Your task to perform on an android device: stop showing notifications on the lock screen Image 0: 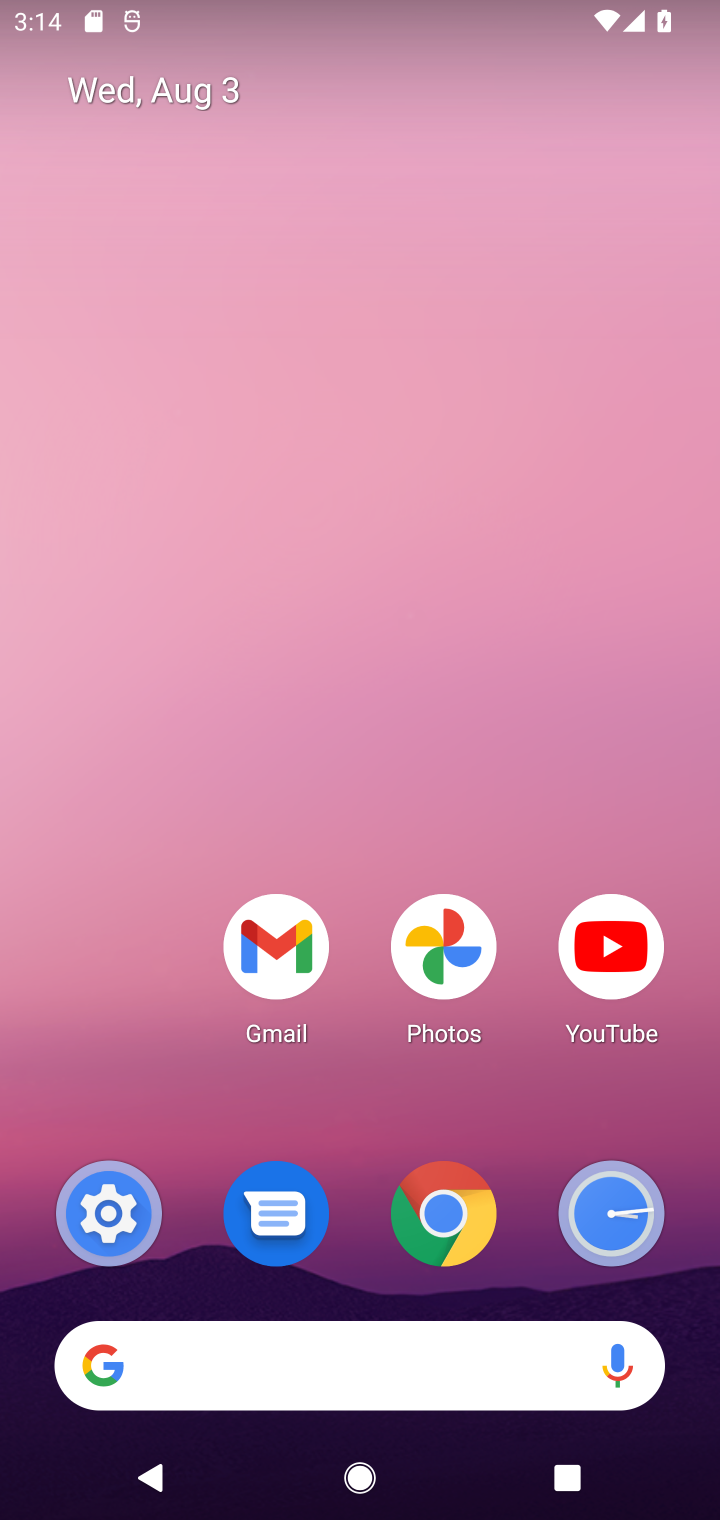
Step 0: drag from (567, 969) to (567, 127)
Your task to perform on an android device: stop showing notifications on the lock screen Image 1: 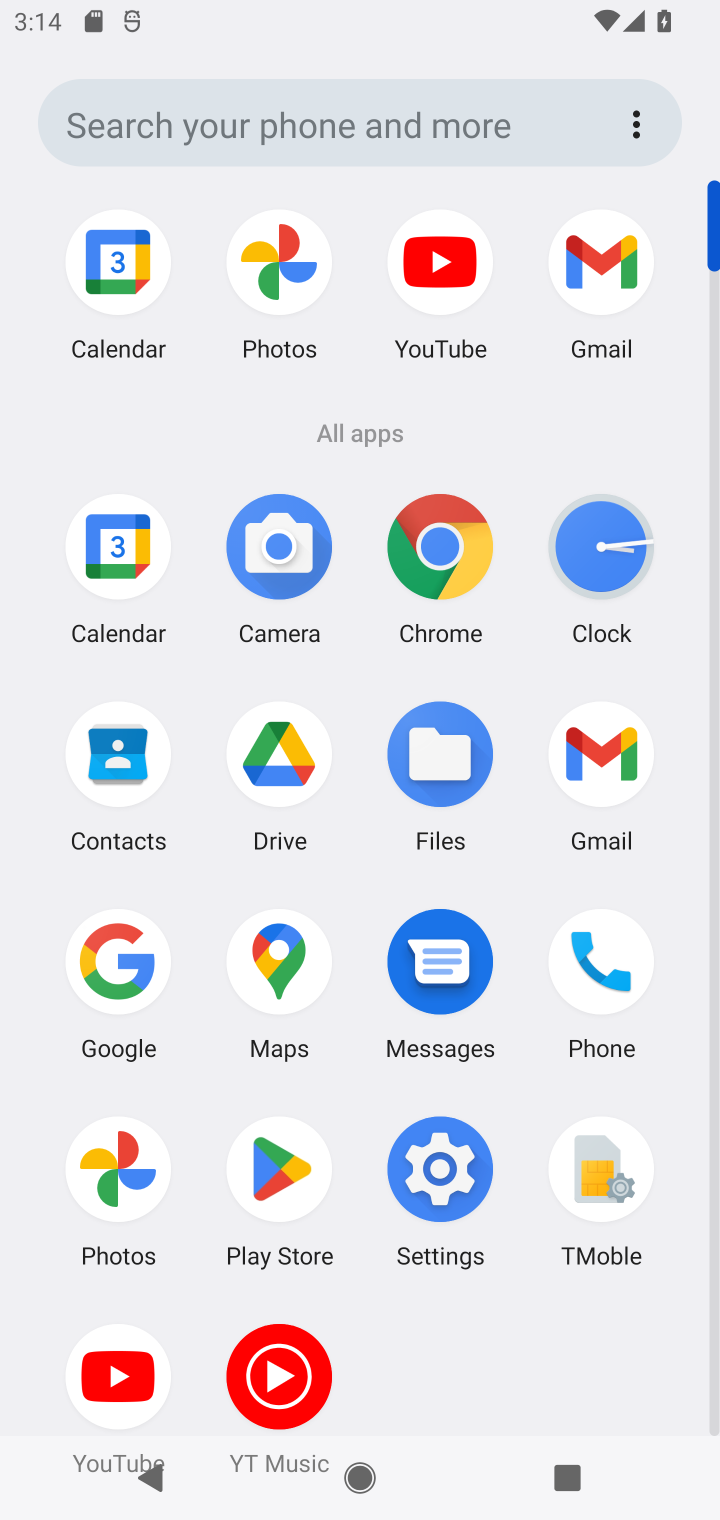
Step 1: click (424, 1184)
Your task to perform on an android device: stop showing notifications on the lock screen Image 2: 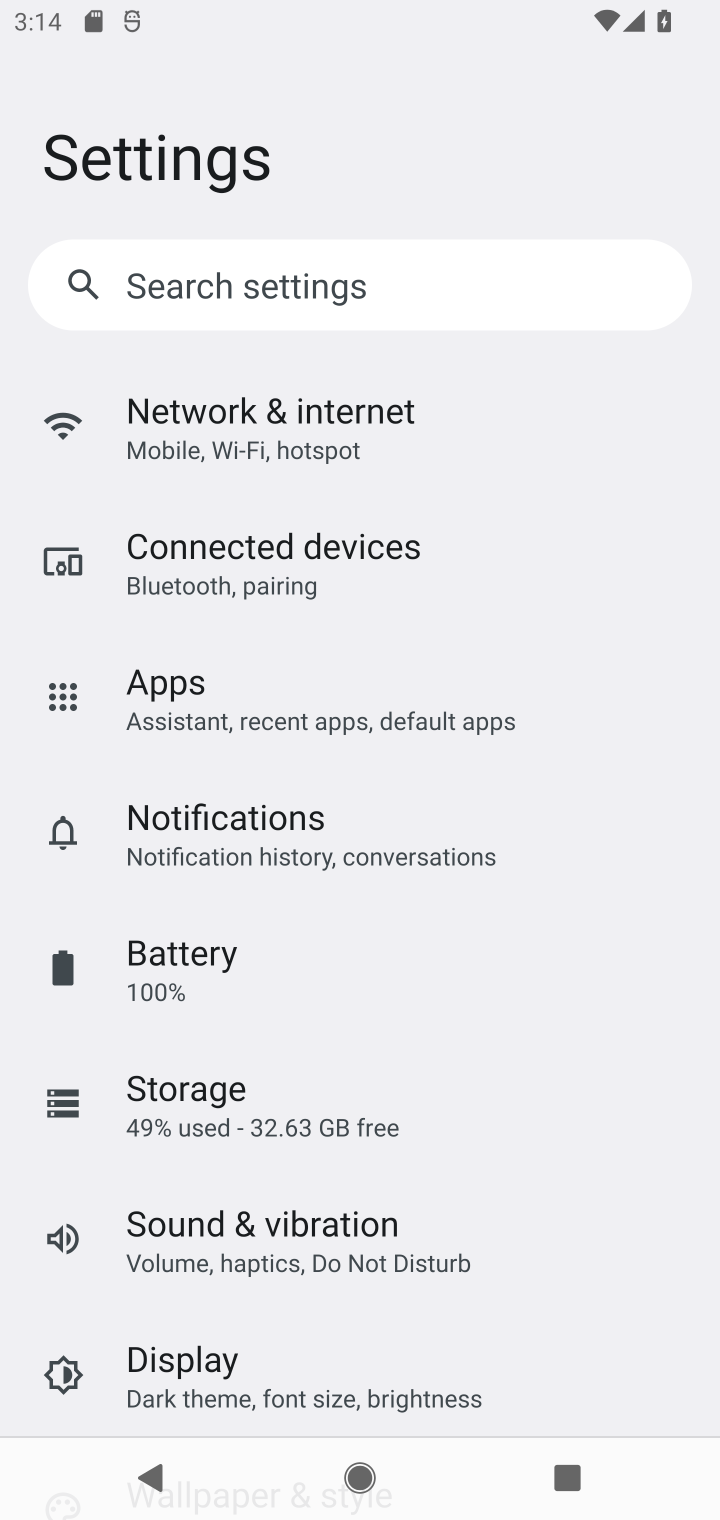
Step 2: click (315, 846)
Your task to perform on an android device: stop showing notifications on the lock screen Image 3: 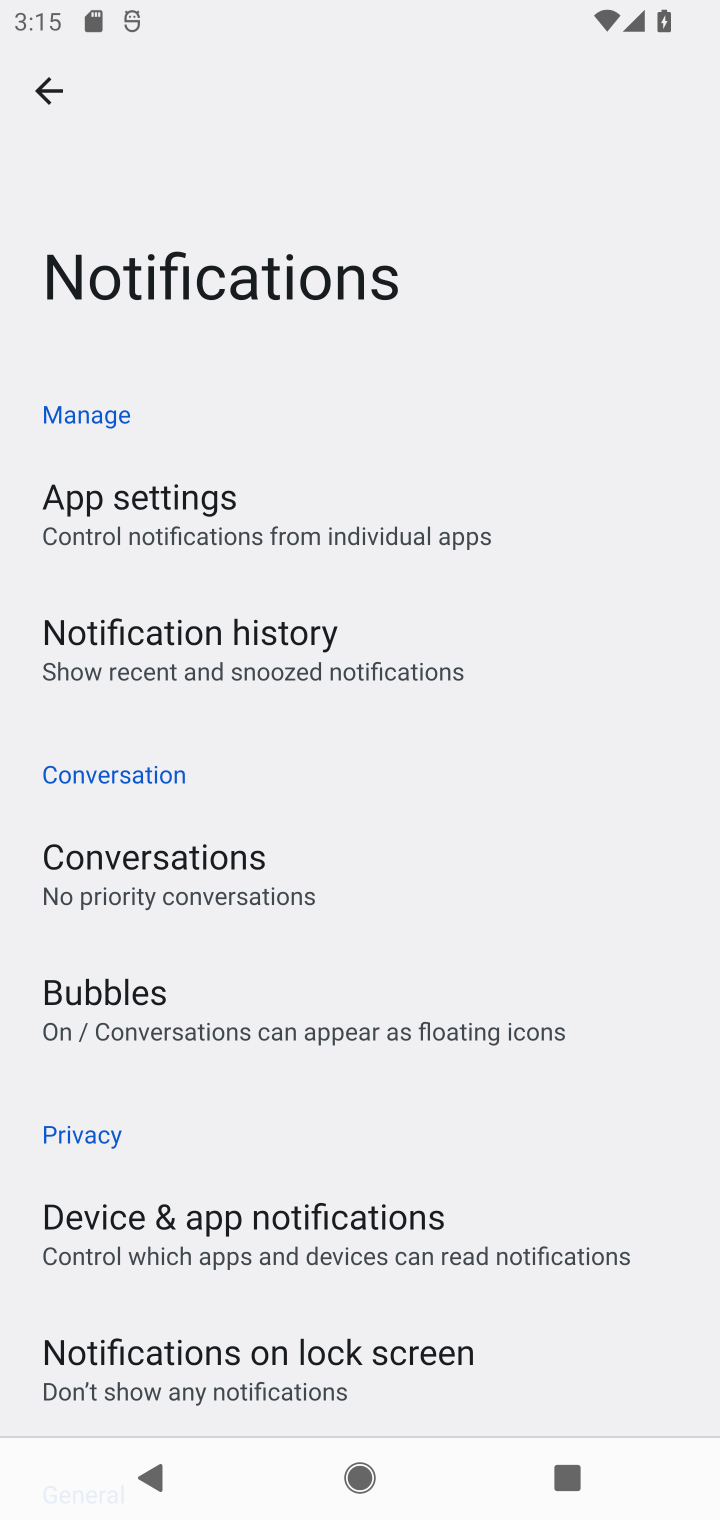
Step 3: click (249, 1376)
Your task to perform on an android device: stop showing notifications on the lock screen Image 4: 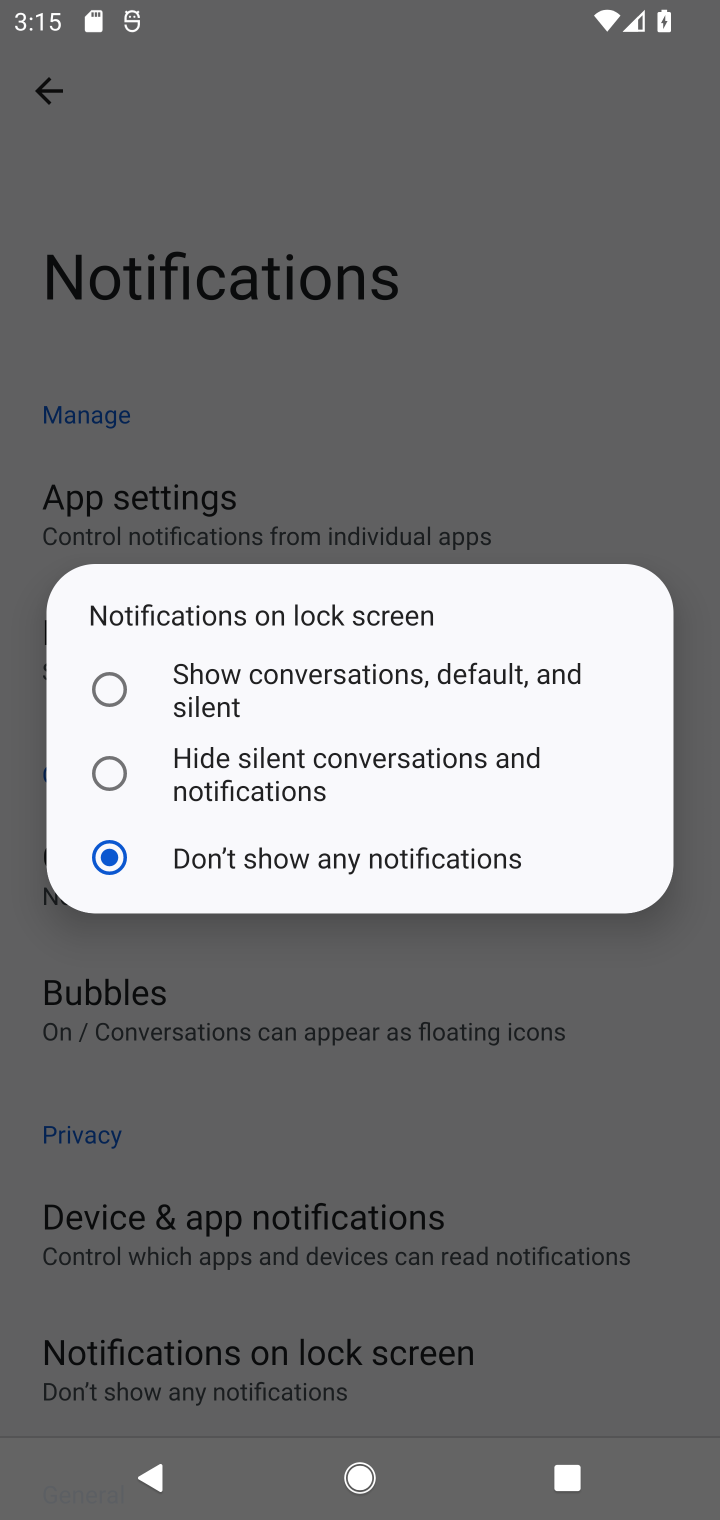
Step 4: task complete